Your task to perform on an android device: Open Google Maps and go to "Timeline" Image 0: 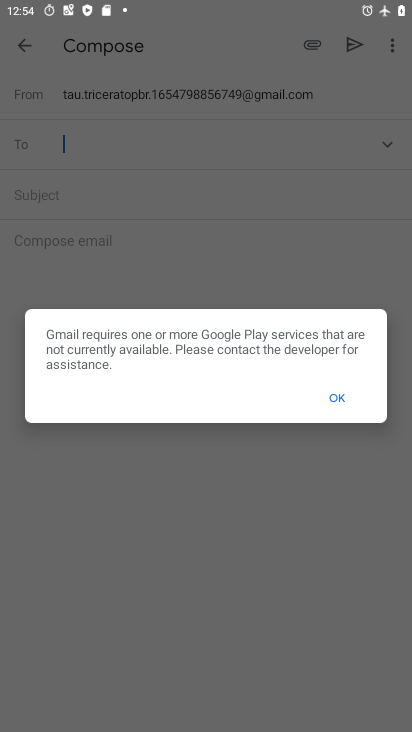
Step 0: press home button
Your task to perform on an android device: Open Google Maps and go to "Timeline" Image 1: 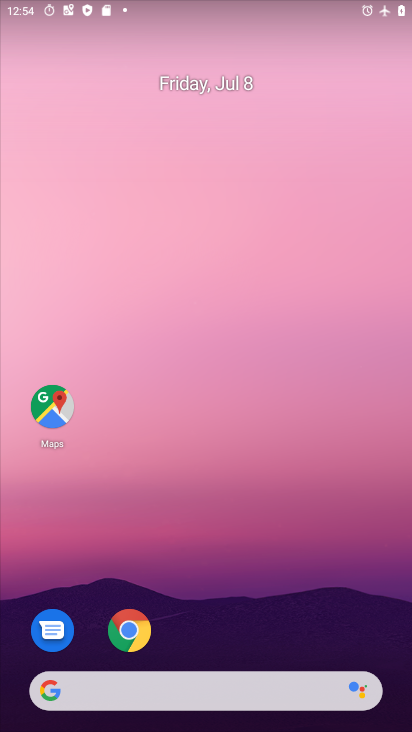
Step 1: click (70, 419)
Your task to perform on an android device: Open Google Maps and go to "Timeline" Image 2: 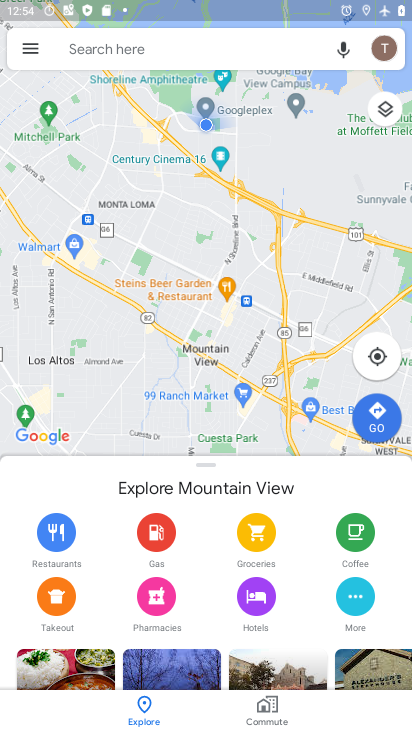
Step 2: click (27, 47)
Your task to perform on an android device: Open Google Maps and go to "Timeline" Image 3: 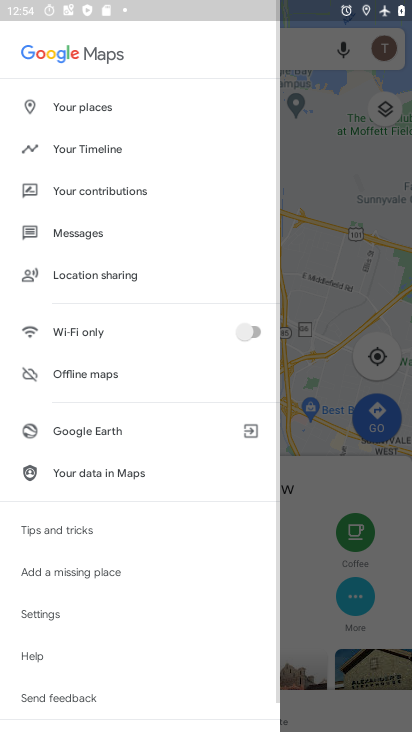
Step 3: click (91, 144)
Your task to perform on an android device: Open Google Maps and go to "Timeline" Image 4: 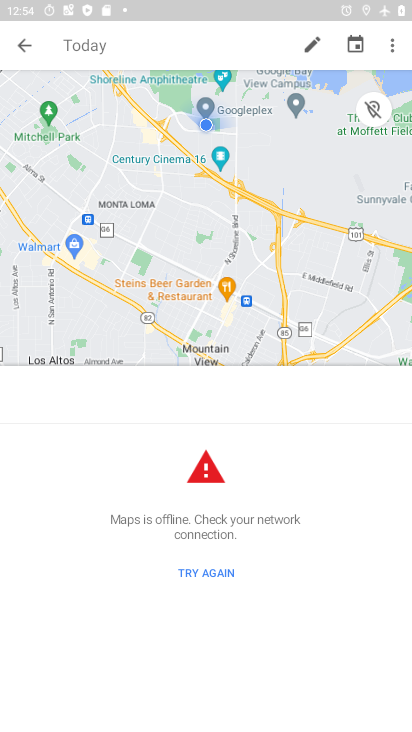
Step 4: task complete